Your task to perform on an android device: search for starred emails in the gmail app Image 0: 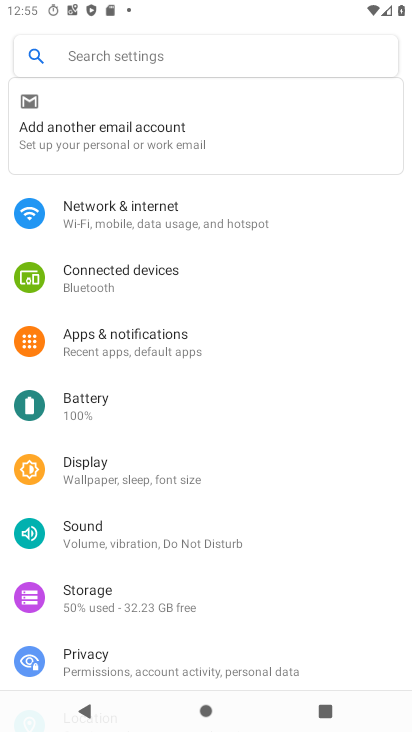
Step 0: press home button
Your task to perform on an android device: search for starred emails in the gmail app Image 1: 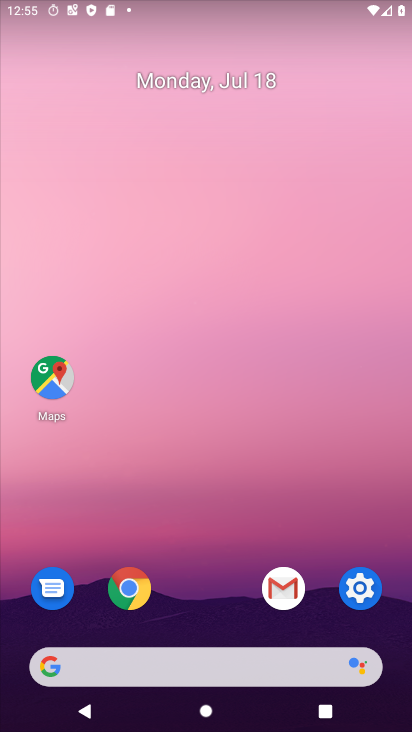
Step 1: click (265, 585)
Your task to perform on an android device: search for starred emails in the gmail app Image 2: 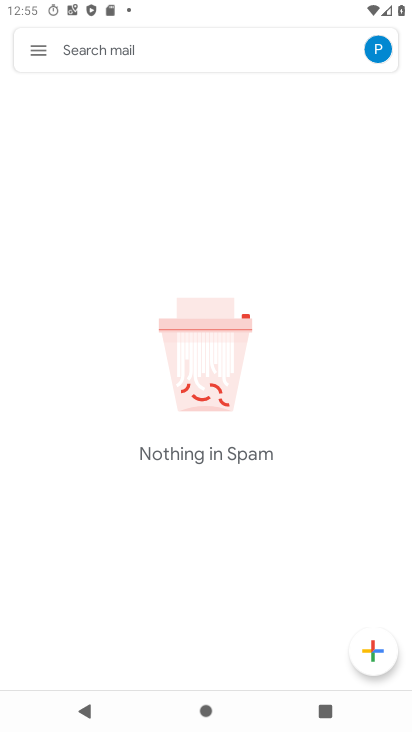
Step 2: click (51, 53)
Your task to perform on an android device: search for starred emails in the gmail app Image 3: 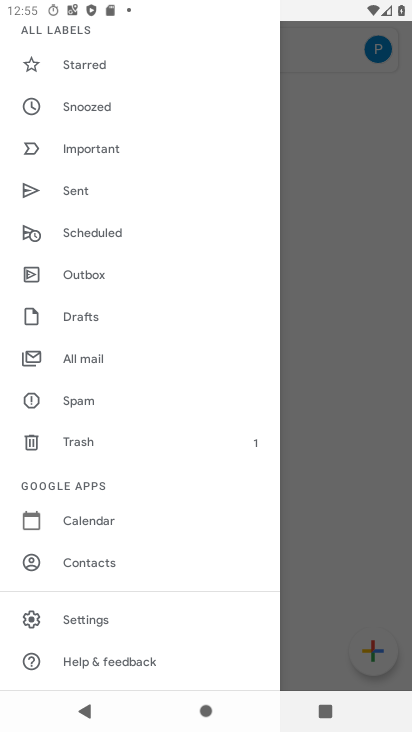
Step 3: click (79, 71)
Your task to perform on an android device: search for starred emails in the gmail app Image 4: 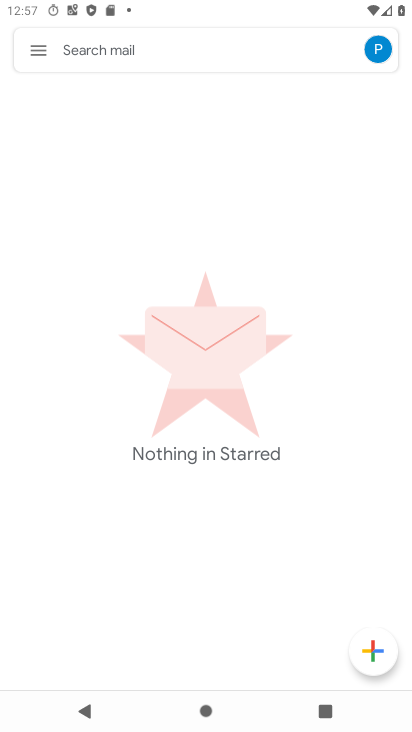
Step 4: task complete